Your task to perform on an android device: delete a single message in the gmail app Image 0: 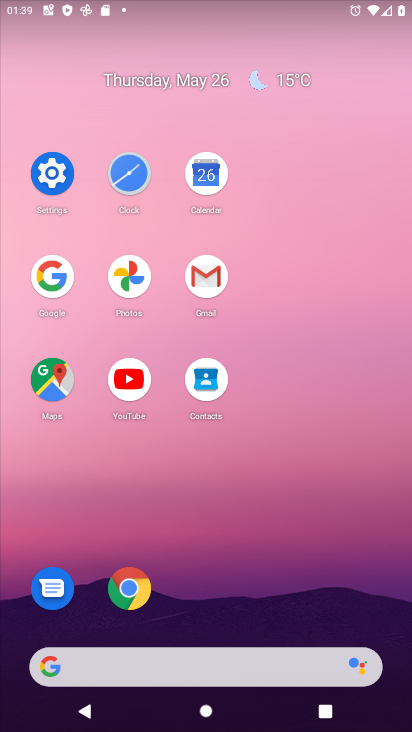
Step 0: click (220, 275)
Your task to perform on an android device: delete a single message in the gmail app Image 1: 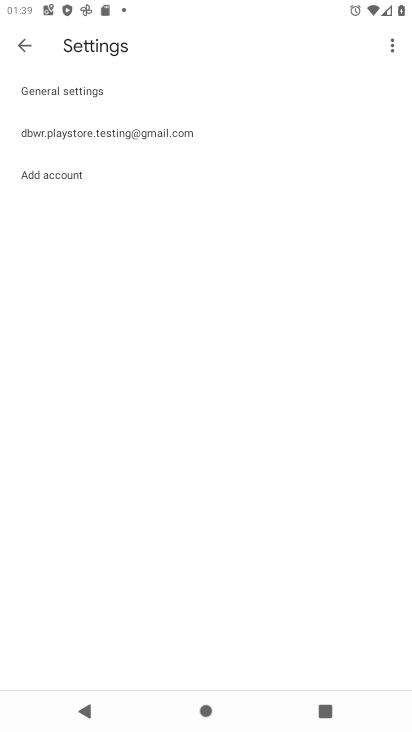
Step 1: click (36, 34)
Your task to perform on an android device: delete a single message in the gmail app Image 2: 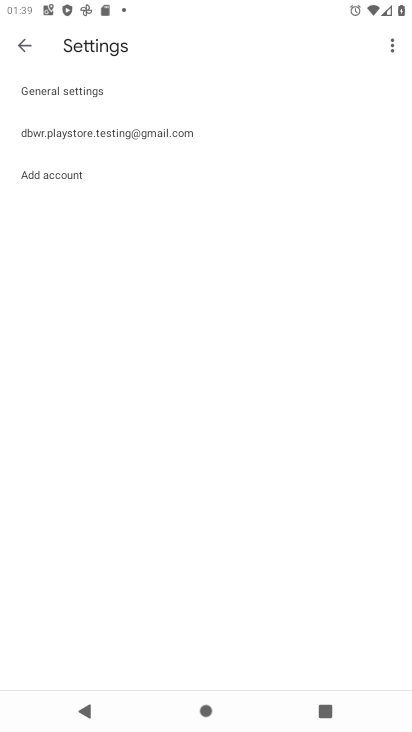
Step 2: click (22, 47)
Your task to perform on an android device: delete a single message in the gmail app Image 3: 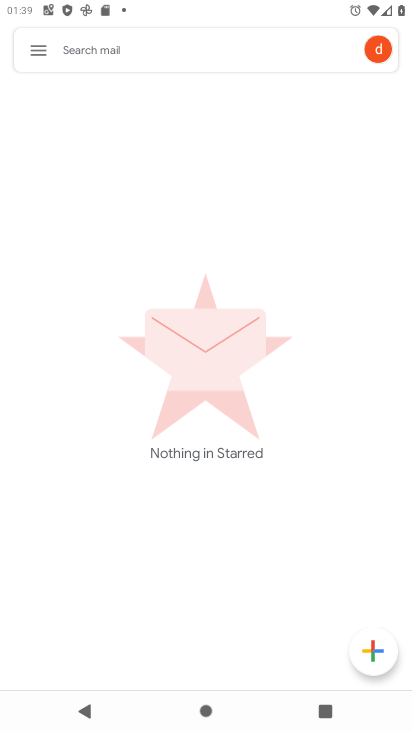
Step 3: click (35, 57)
Your task to perform on an android device: delete a single message in the gmail app Image 4: 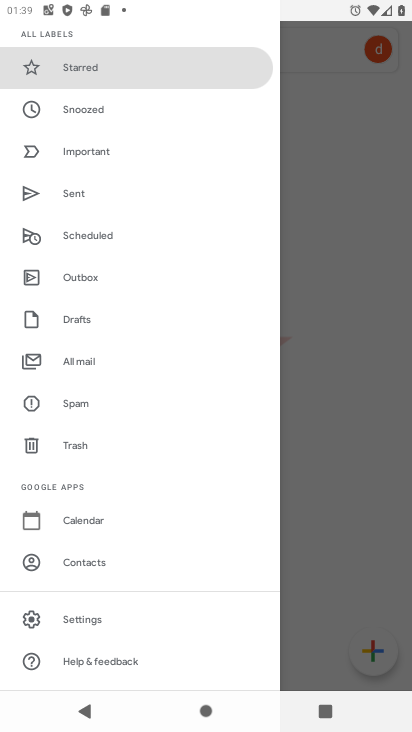
Step 4: click (114, 367)
Your task to perform on an android device: delete a single message in the gmail app Image 5: 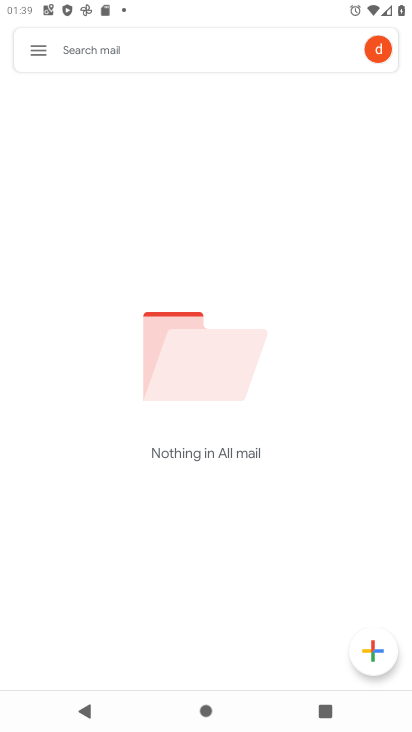
Step 5: task complete